Your task to perform on an android device: Go to battery settings Image 0: 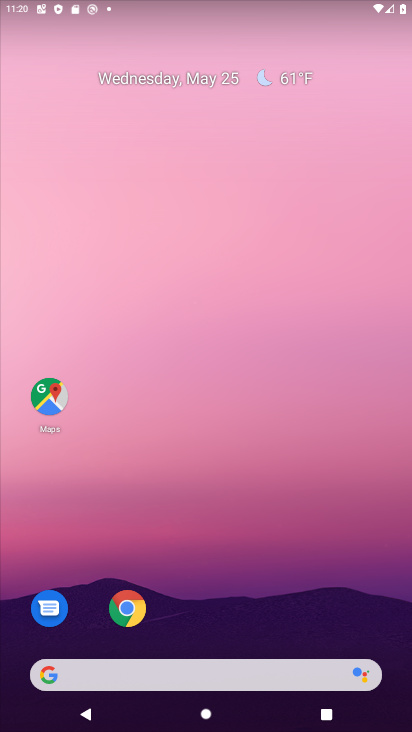
Step 0: drag from (205, 646) to (291, 64)
Your task to perform on an android device: Go to battery settings Image 1: 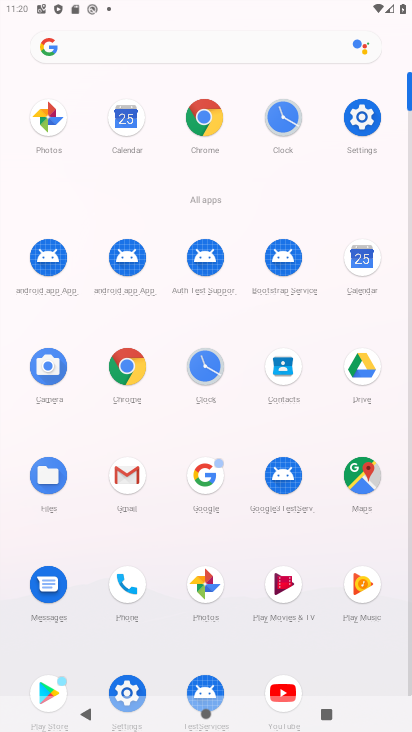
Step 1: click (210, 363)
Your task to perform on an android device: Go to battery settings Image 2: 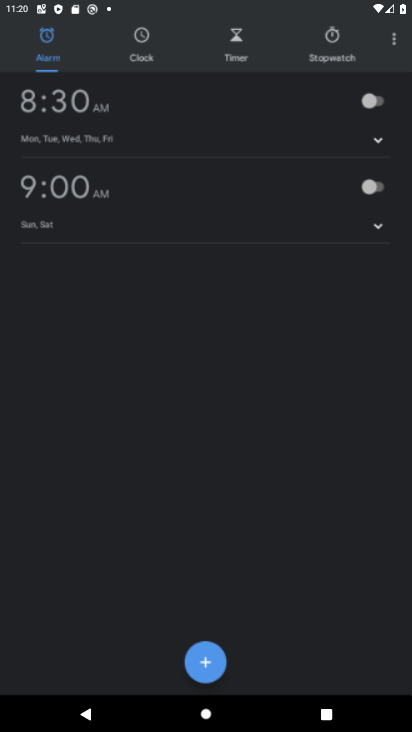
Step 2: press back button
Your task to perform on an android device: Go to battery settings Image 3: 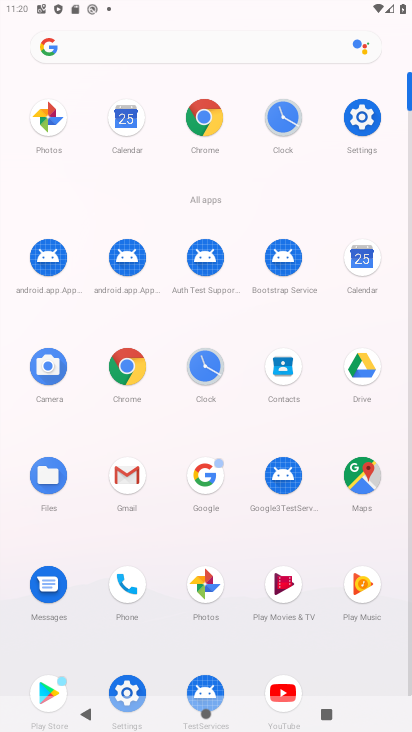
Step 3: click (360, 118)
Your task to perform on an android device: Go to battery settings Image 4: 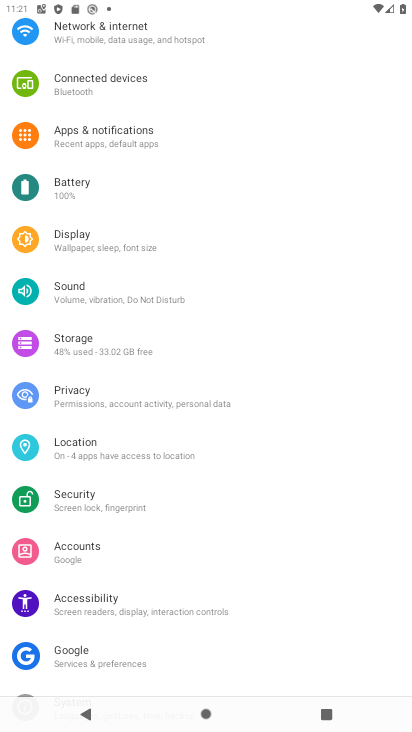
Step 4: click (51, 183)
Your task to perform on an android device: Go to battery settings Image 5: 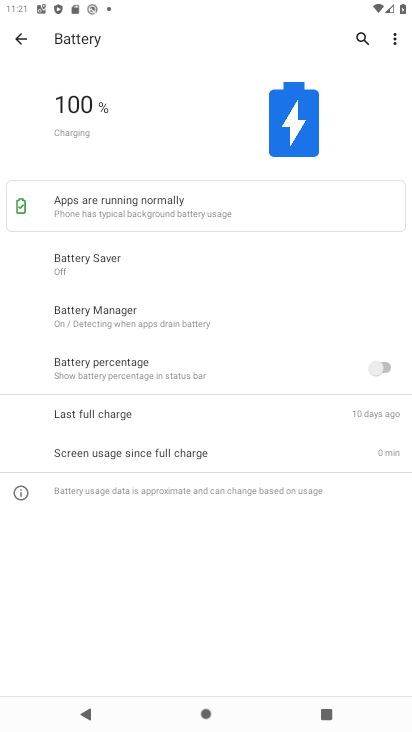
Step 5: task complete